Your task to perform on an android device: Show me productivity apps on the Play Store Image 0: 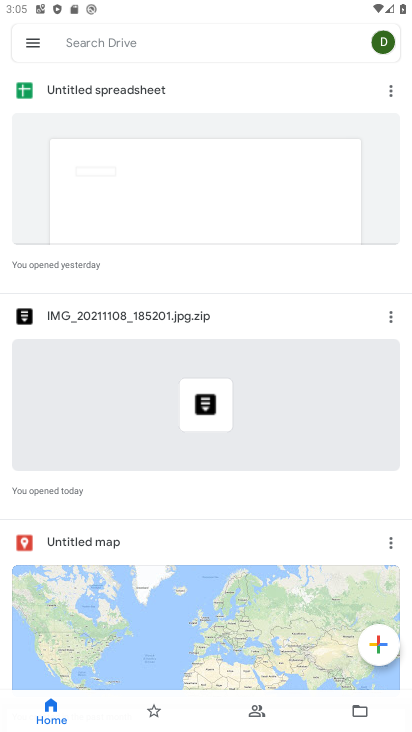
Step 0: press home button
Your task to perform on an android device: Show me productivity apps on the Play Store Image 1: 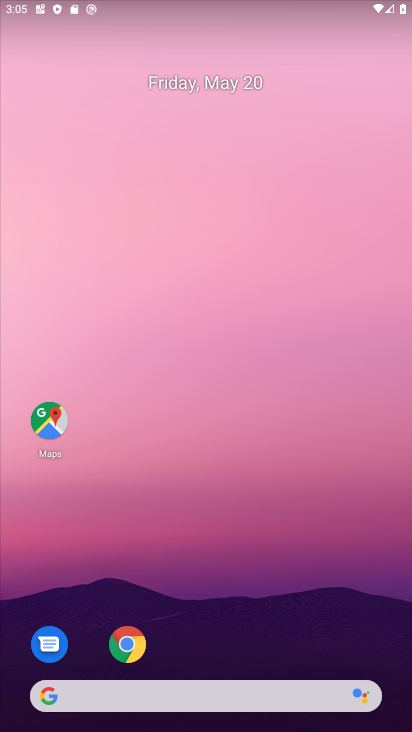
Step 1: drag from (298, 586) to (230, 103)
Your task to perform on an android device: Show me productivity apps on the Play Store Image 2: 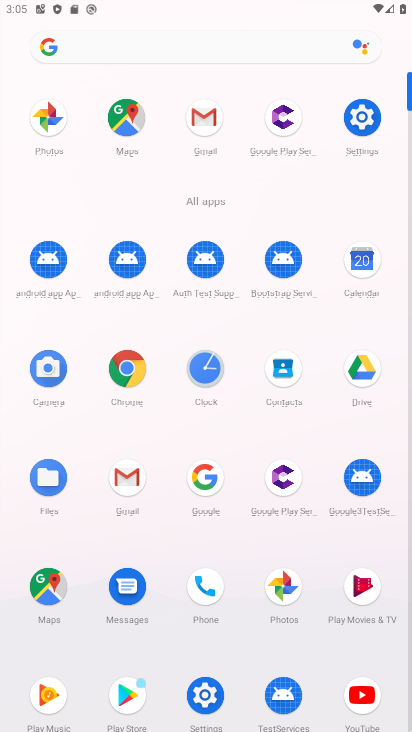
Step 2: click (120, 712)
Your task to perform on an android device: Show me productivity apps on the Play Store Image 3: 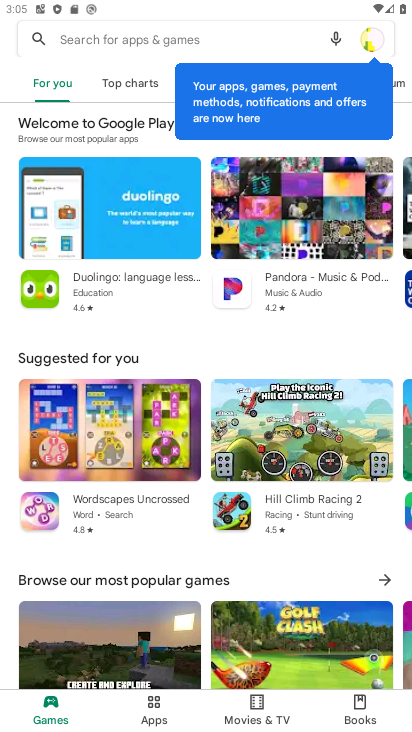
Step 3: click (127, 715)
Your task to perform on an android device: Show me productivity apps on the Play Store Image 4: 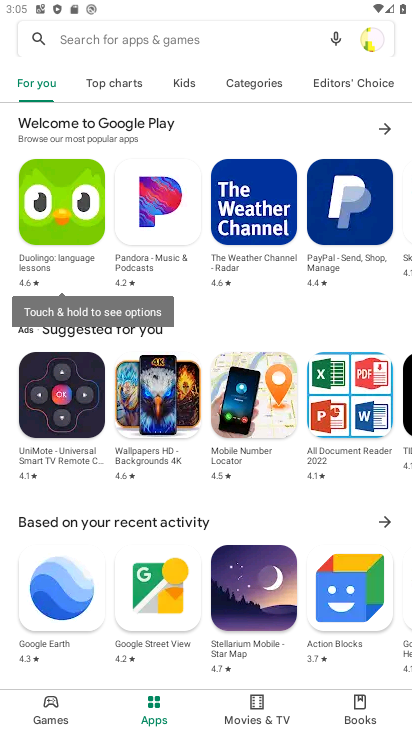
Step 4: click (124, 104)
Your task to perform on an android device: Show me productivity apps on the Play Store Image 5: 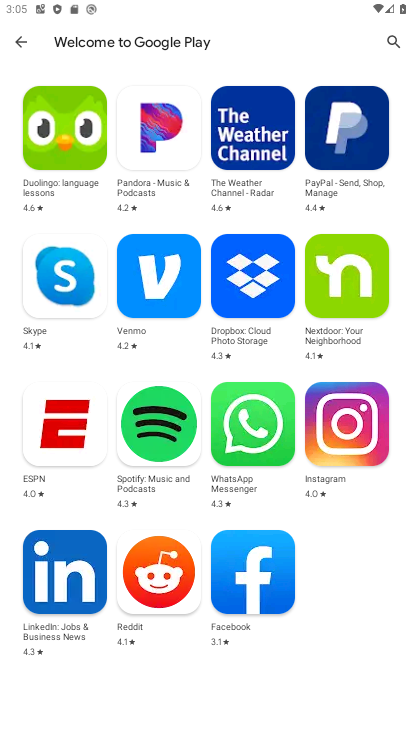
Step 5: click (26, 50)
Your task to perform on an android device: Show me productivity apps on the Play Store Image 6: 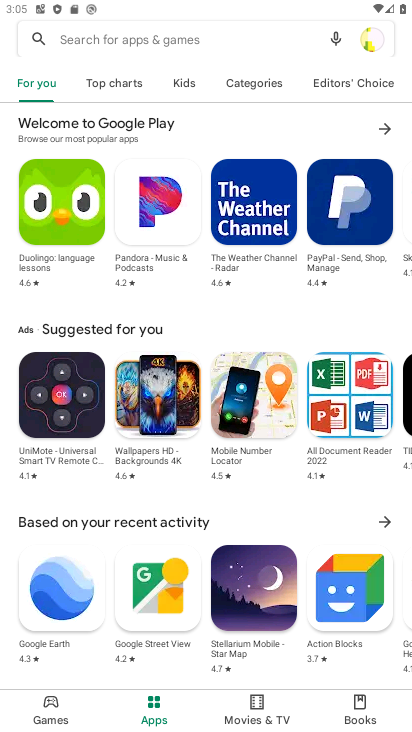
Step 6: click (95, 83)
Your task to perform on an android device: Show me productivity apps on the Play Store Image 7: 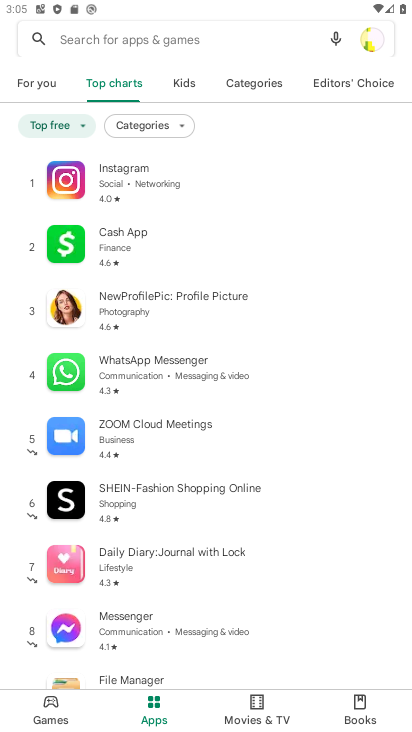
Step 7: click (133, 119)
Your task to perform on an android device: Show me productivity apps on the Play Store Image 8: 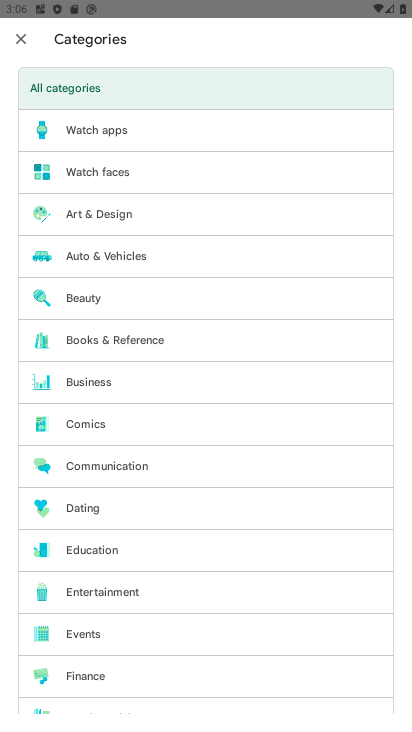
Step 8: drag from (198, 607) to (194, 268)
Your task to perform on an android device: Show me productivity apps on the Play Store Image 9: 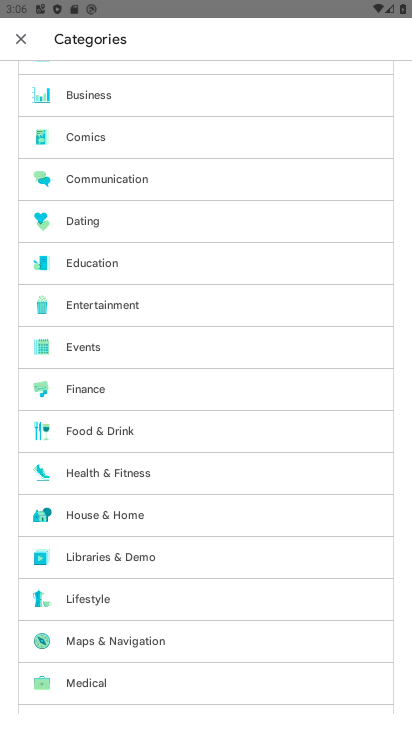
Step 9: drag from (177, 618) to (143, 379)
Your task to perform on an android device: Show me productivity apps on the Play Store Image 10: 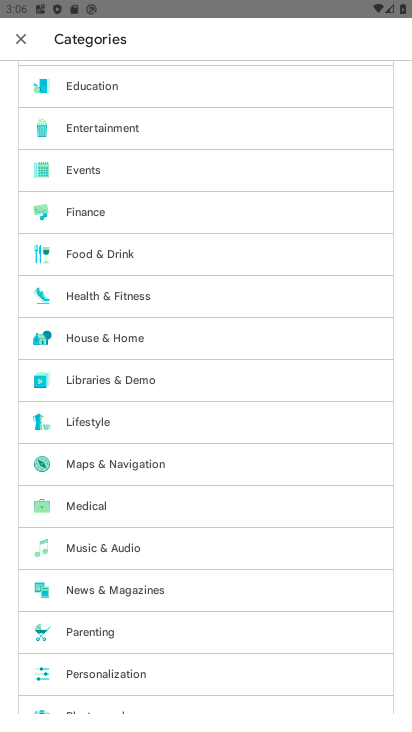
Step 10: drag from (142, 650) to (108, 339)
Your task to perform on an android device: Show me productivity apps on the Play Store Image 11: 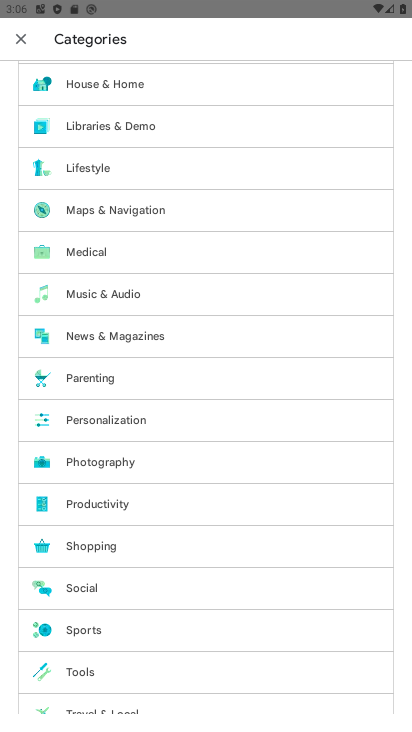
Step 11: click (114, 499)
Your task to perform on an android device: Show me productivity apps on the Play Store Image 12: 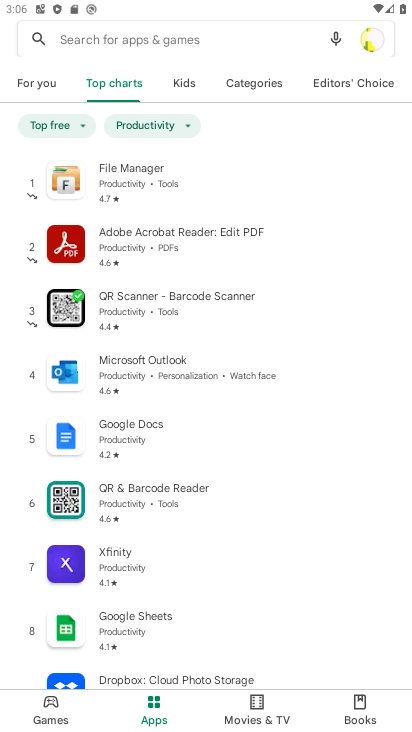
Step 12: task complete